Your task to perform on an android device: clear history in the chrome app Image 0: 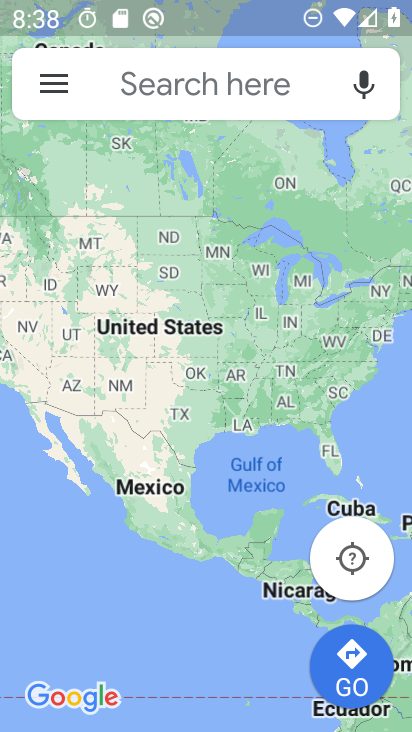
Step 0: press home button
Your task to perform on an android device: clear history in the chrome app Image 1: 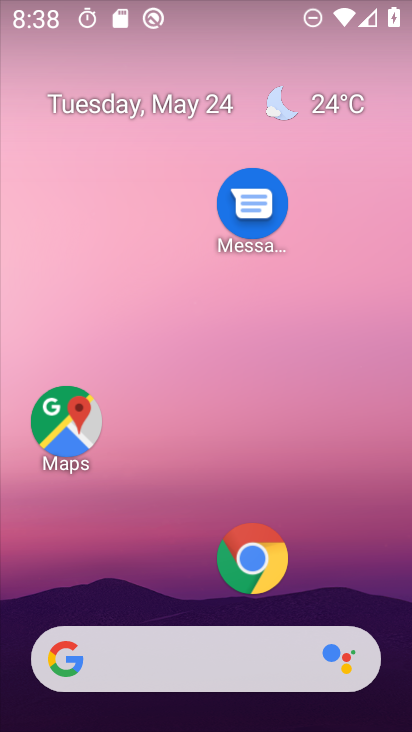
Step 1: click (233, 565)
Your task to perform on an android device: clear history in the chrome app Image 2: 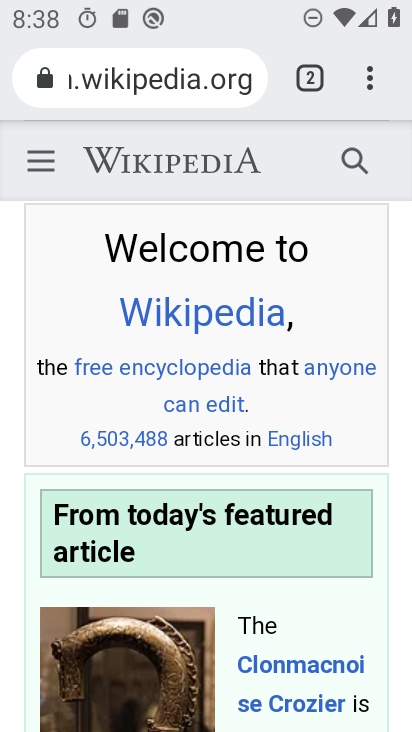
Step 2: drag from (362, 73) to (105, 423)
Your task to perform on an android device: clear history in the chrome app Image 3: 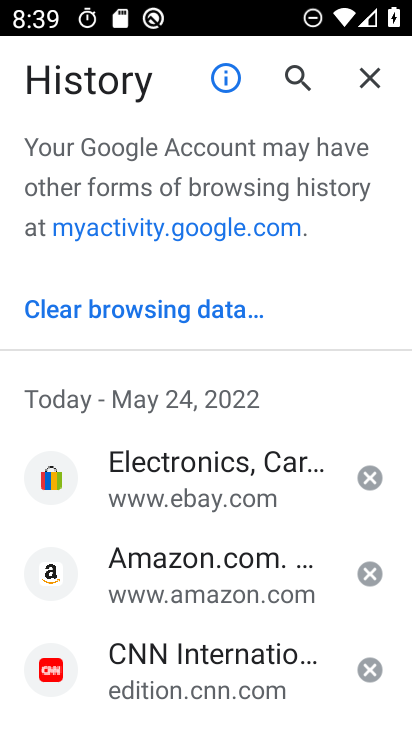
Step 3: click (129, 308)
Your task to perform on an android device: clear history in the chrome app Image 4: 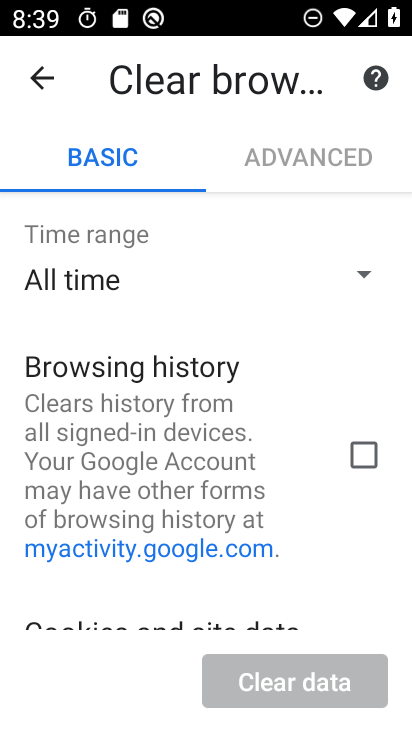
Step 4: drag from (245, 514) to (250, 306)
Your task to perform on an android device: clear history in the chrome app Image 5: 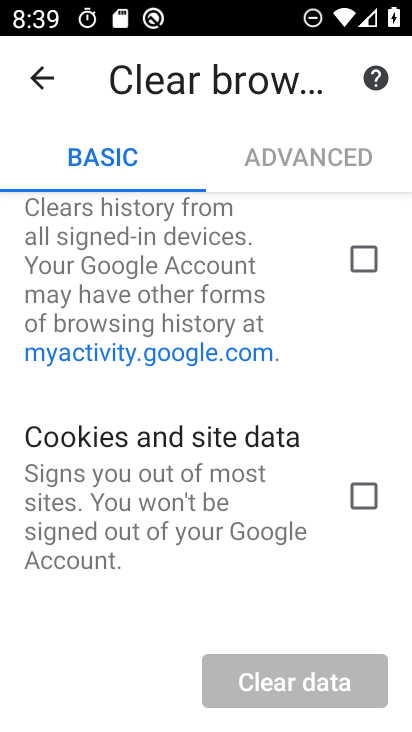
Step 5: click (355, 256)
Your task to perform on an android device: clear history in the chrome app Image 6: 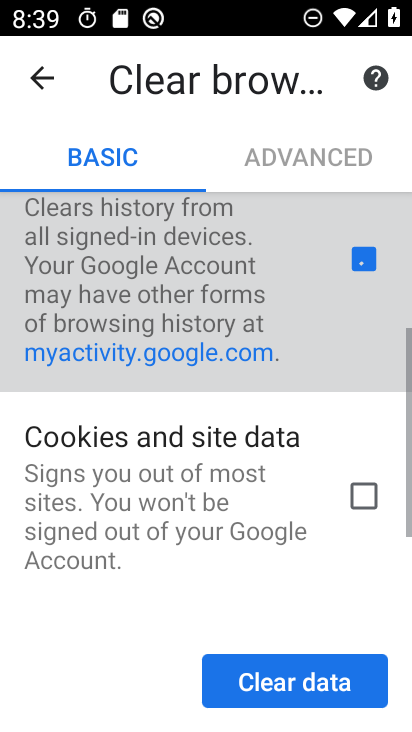
Step 6: click (354, 500)
Your task to perform on an android device: clear history in the chrome app Image 7: 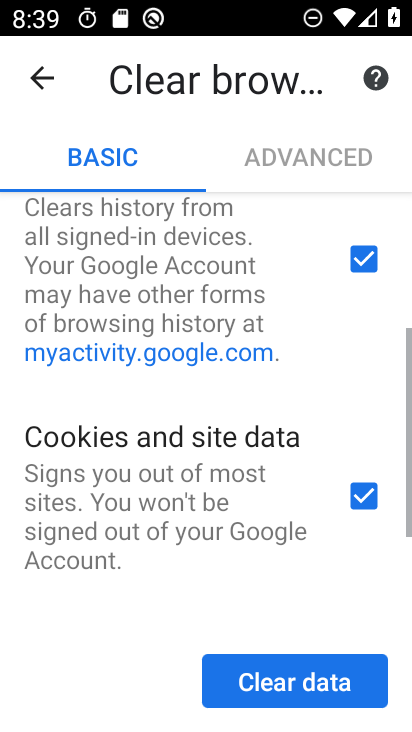
Step 7: drag from (293, 515) to (279, 233)
Your task to perform on an android device: clear history in the chrome app Image 8: 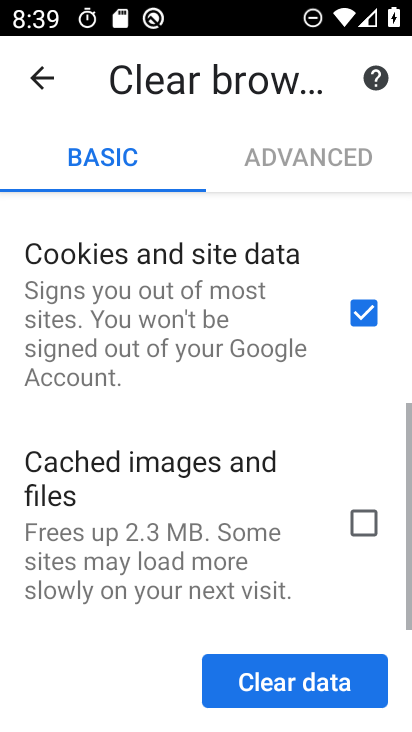
Step 8: click (360, 529)
Your task to perform on an android device: clear history in the chrome app Image 9: 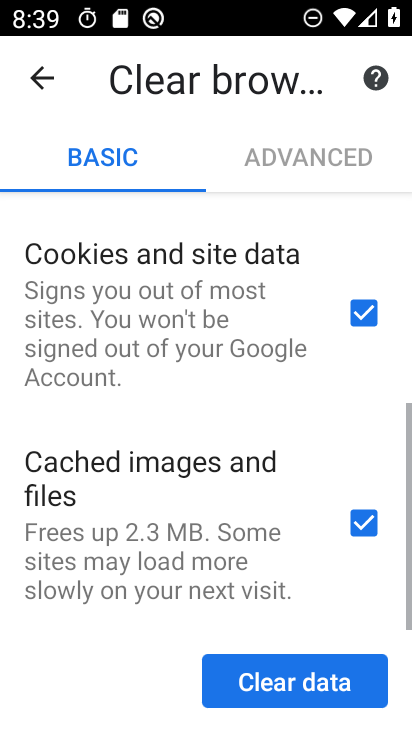
Step 9: click (300, 678)
Your task to perform on an android device: clear history in the chrome app Image 10: 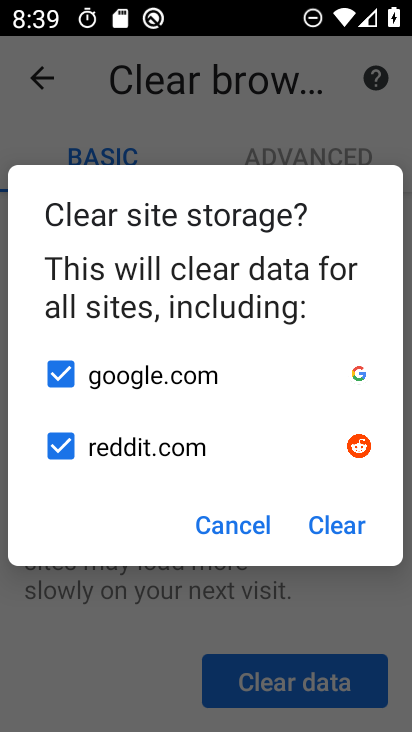
Step 10: click (347, 524)
Your task to perform on an android device: clear history in the chrome app Image 11: 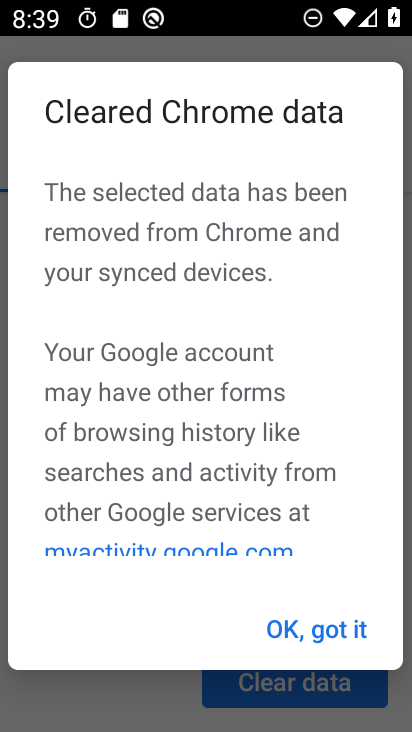
Step 11: click (324, 624)
Your task to perform on an android device: clear history in the chrome app Image 12: 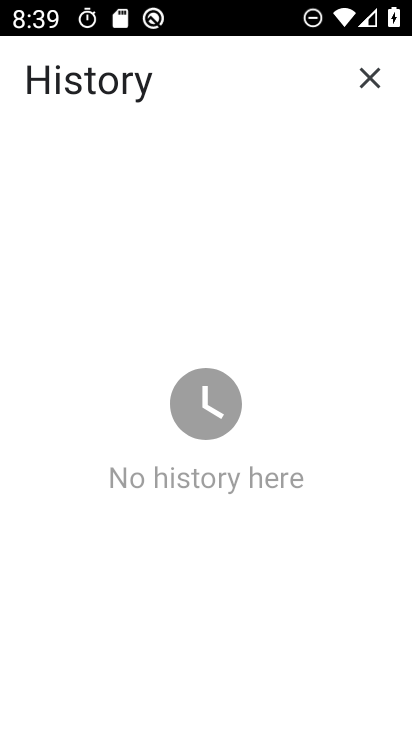
Step 12: task complete